Your task to perform on an android device: turn off picture-in-picture Image 0: 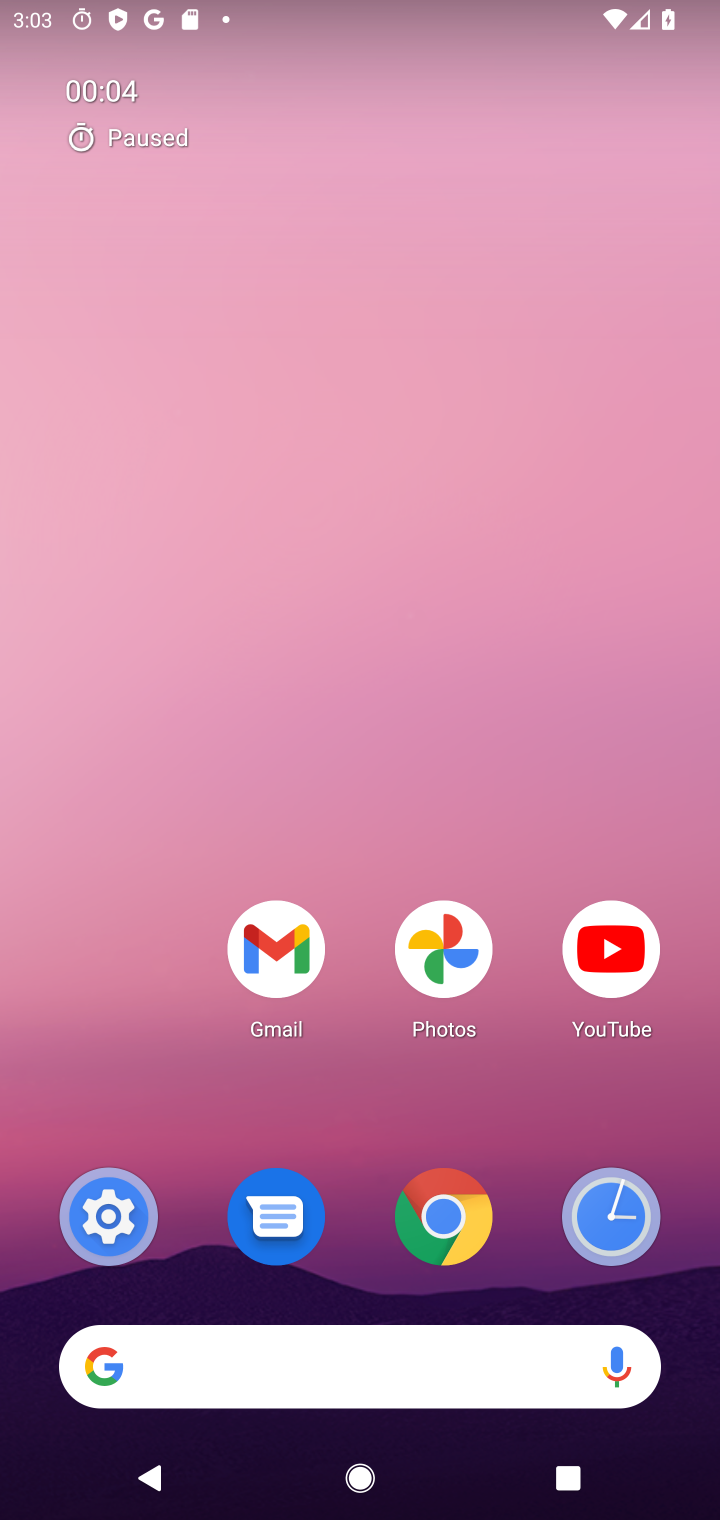
Step 0: click (88, 1190)
Your task to perform on an android device: turn off picture-in-picture Image 1: 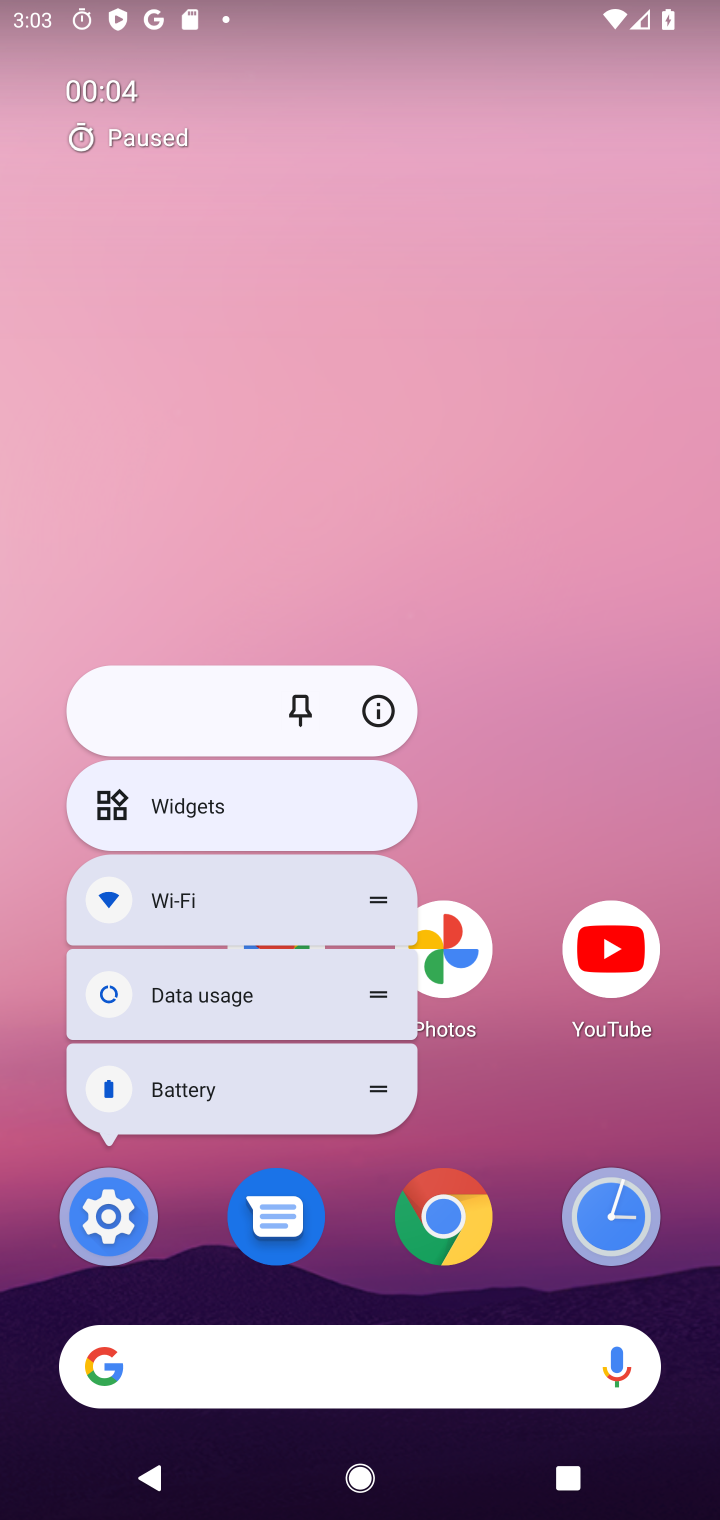
Step 1: click (123, 1178)
Your task to perform on an android device: turn off picture-in-picture Image 2: 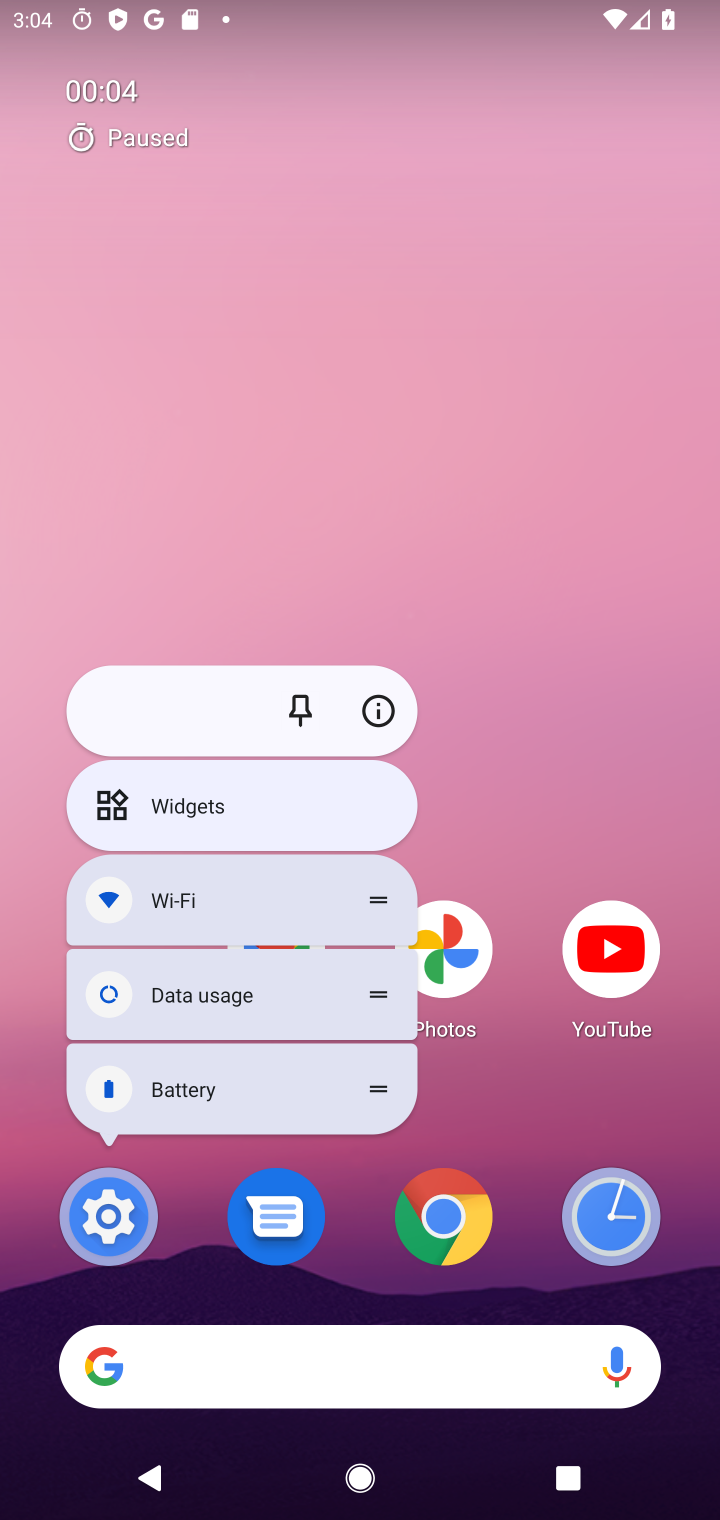
Step 2: click (122, 1222)
Your task to perform on an android device: turn off picture-in-picture Image 3: 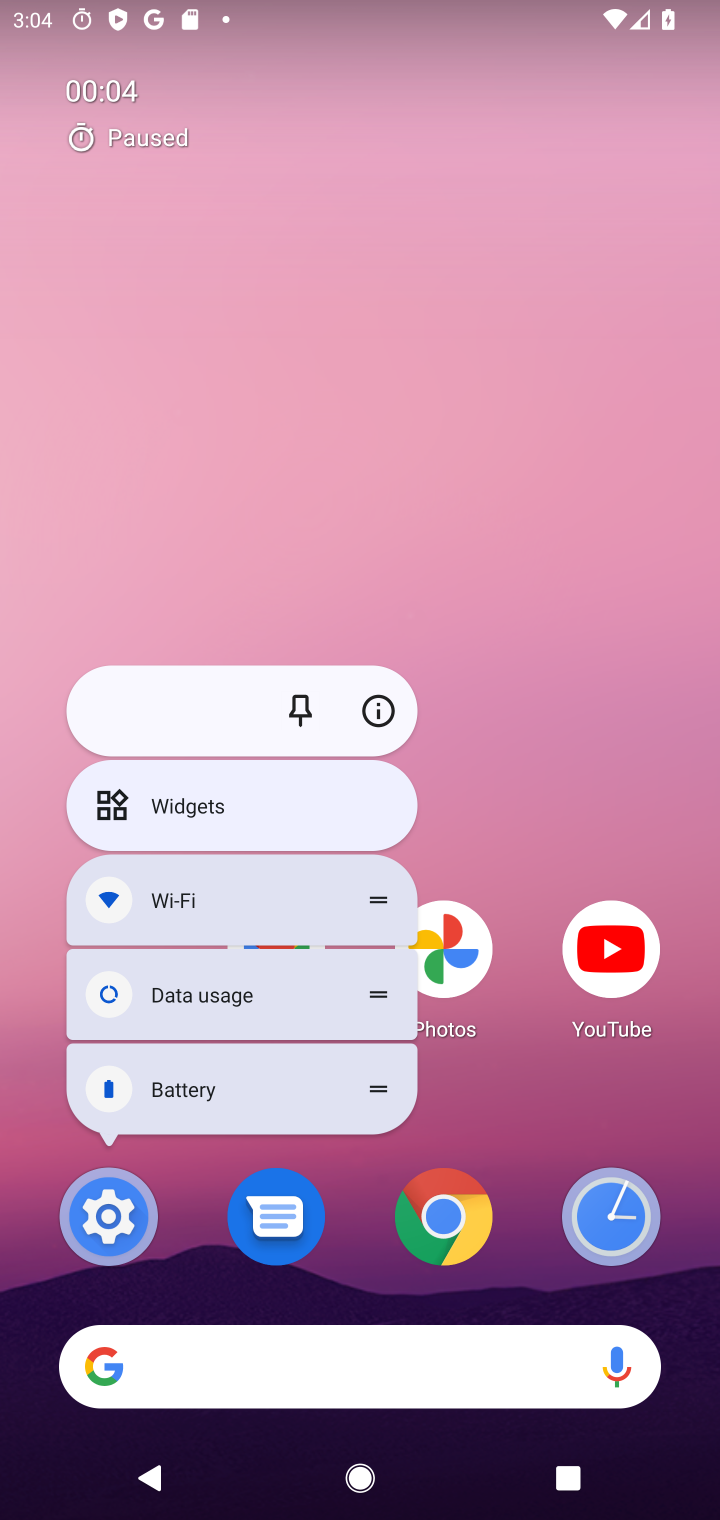
Step 3: click (89, 1198)
Your task to perform on an android device: turn off picture-in-picture Image 4: 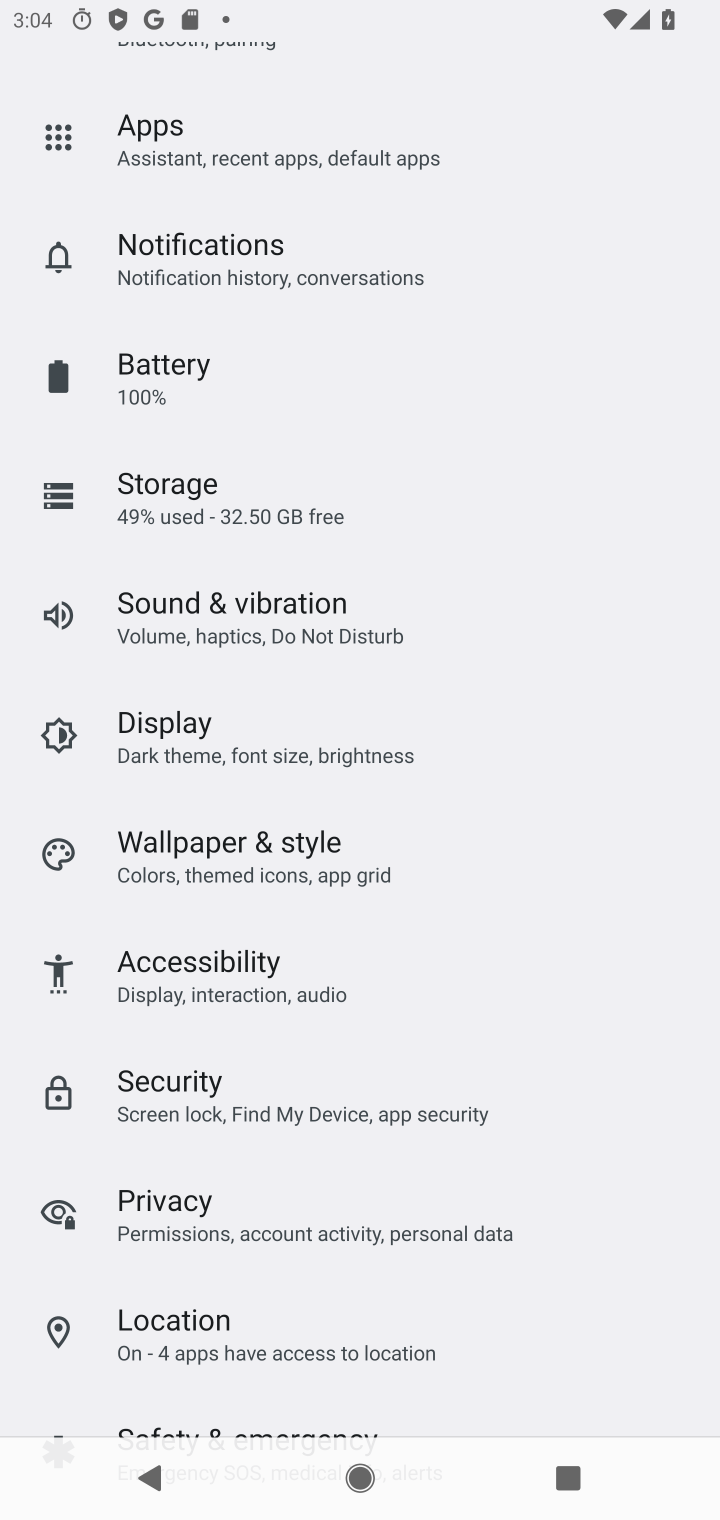
Step 4: click (307, 267)
Your task to perform on an android device: turn off picture-in-picture Image 5: 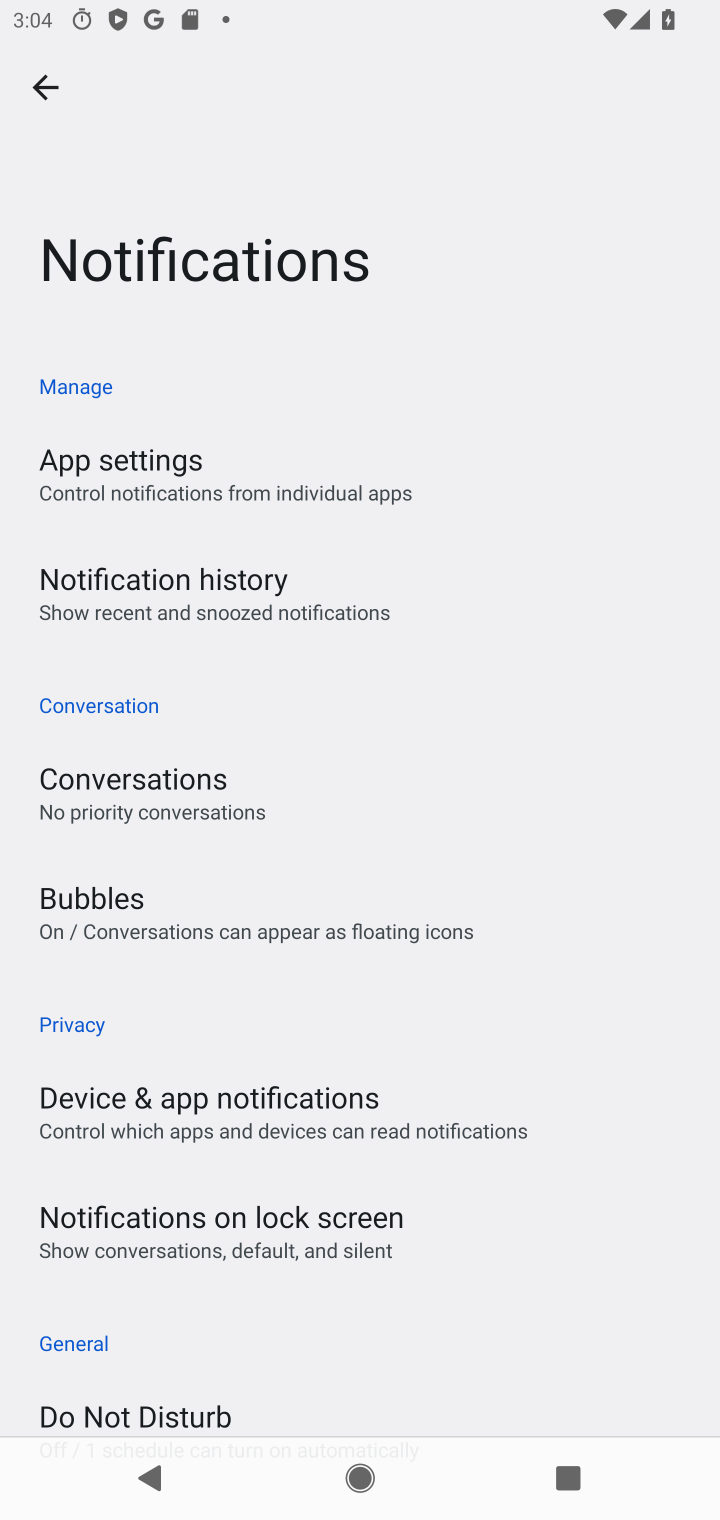
Step 5: drag from (251, 1239) to (540, 114)
Your task to perform on an android device: turn off picture-in-picture Image 6: 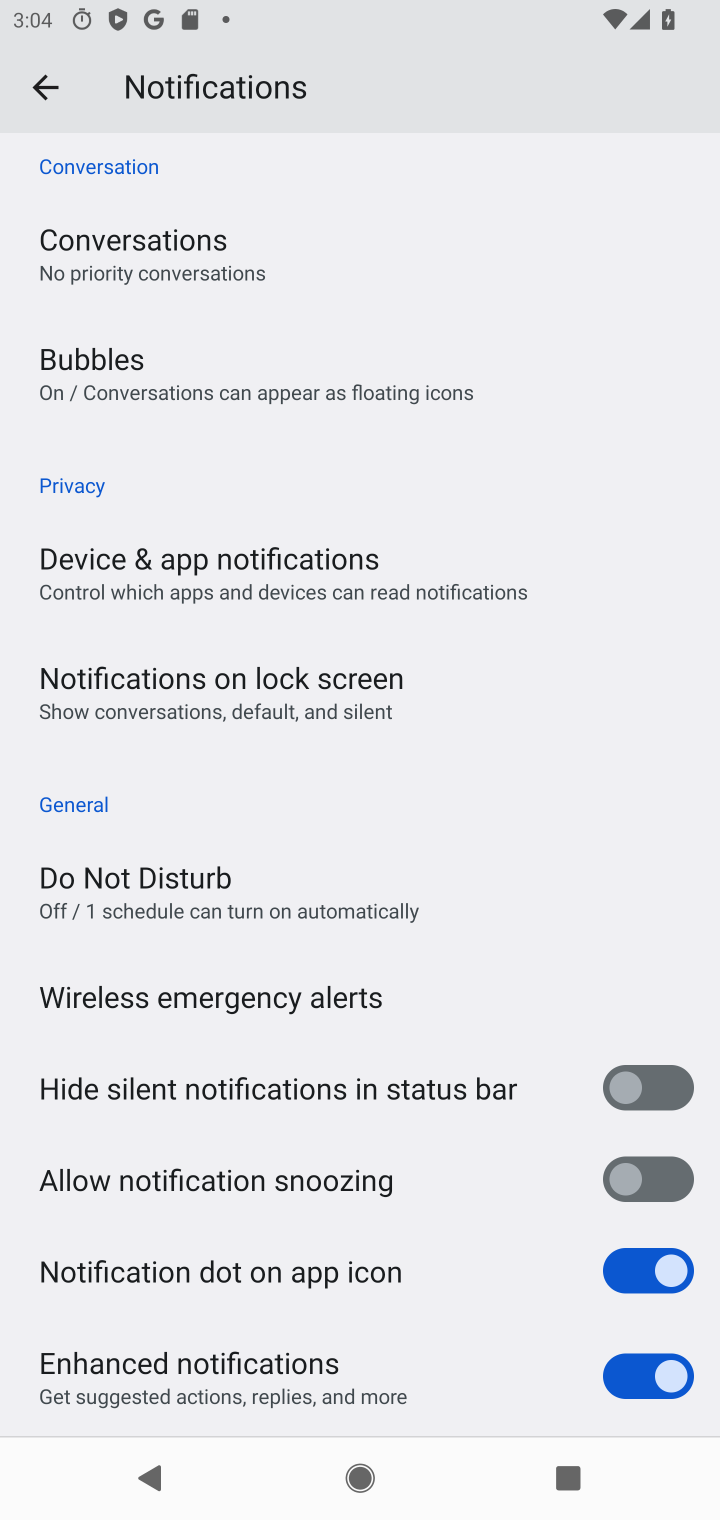
Step 6: drag from (330, 1107) to (363, 1348)
Your task to perform on an android device: turn off picture-in-picture Image 7: 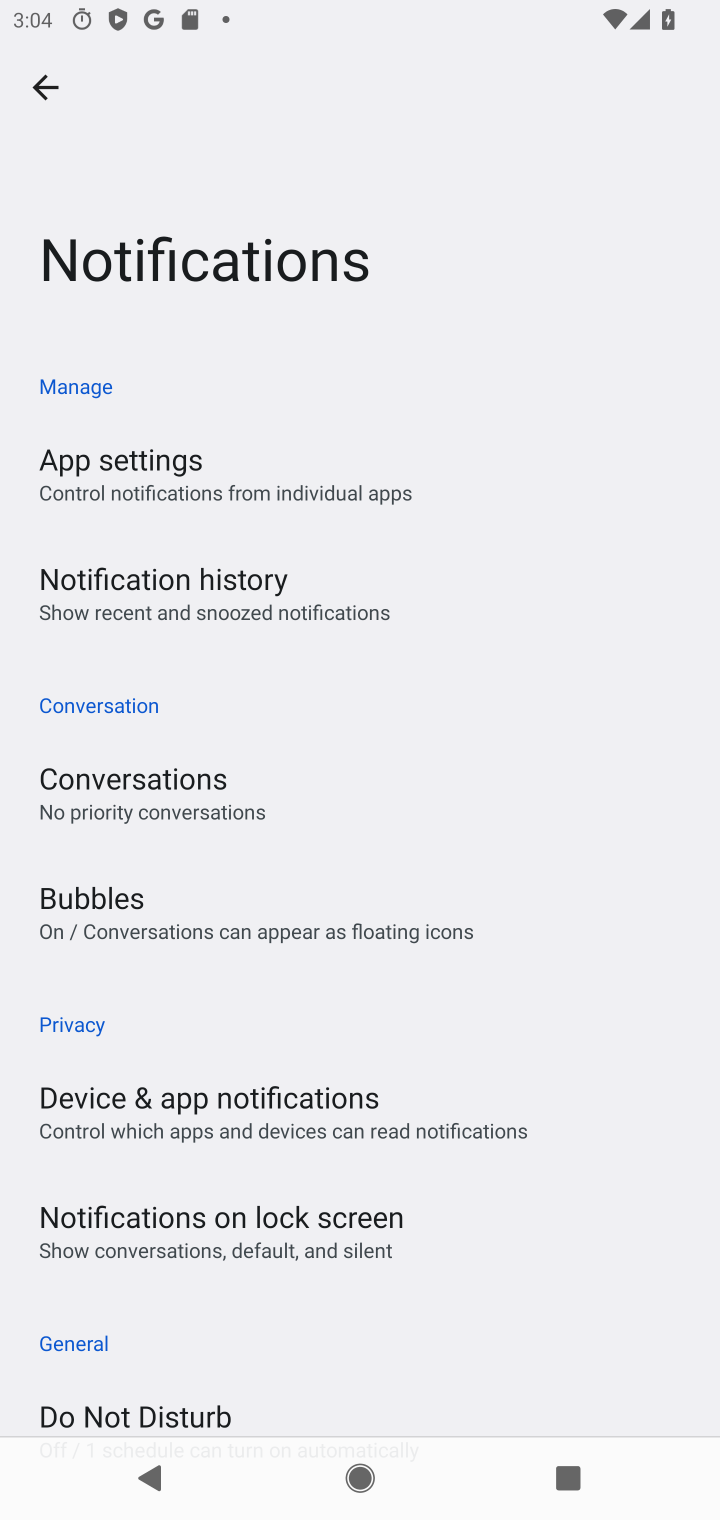
Step 7: click (222, 493)
Your task to perform on an android device: turn off picture-in-picture Image 8: 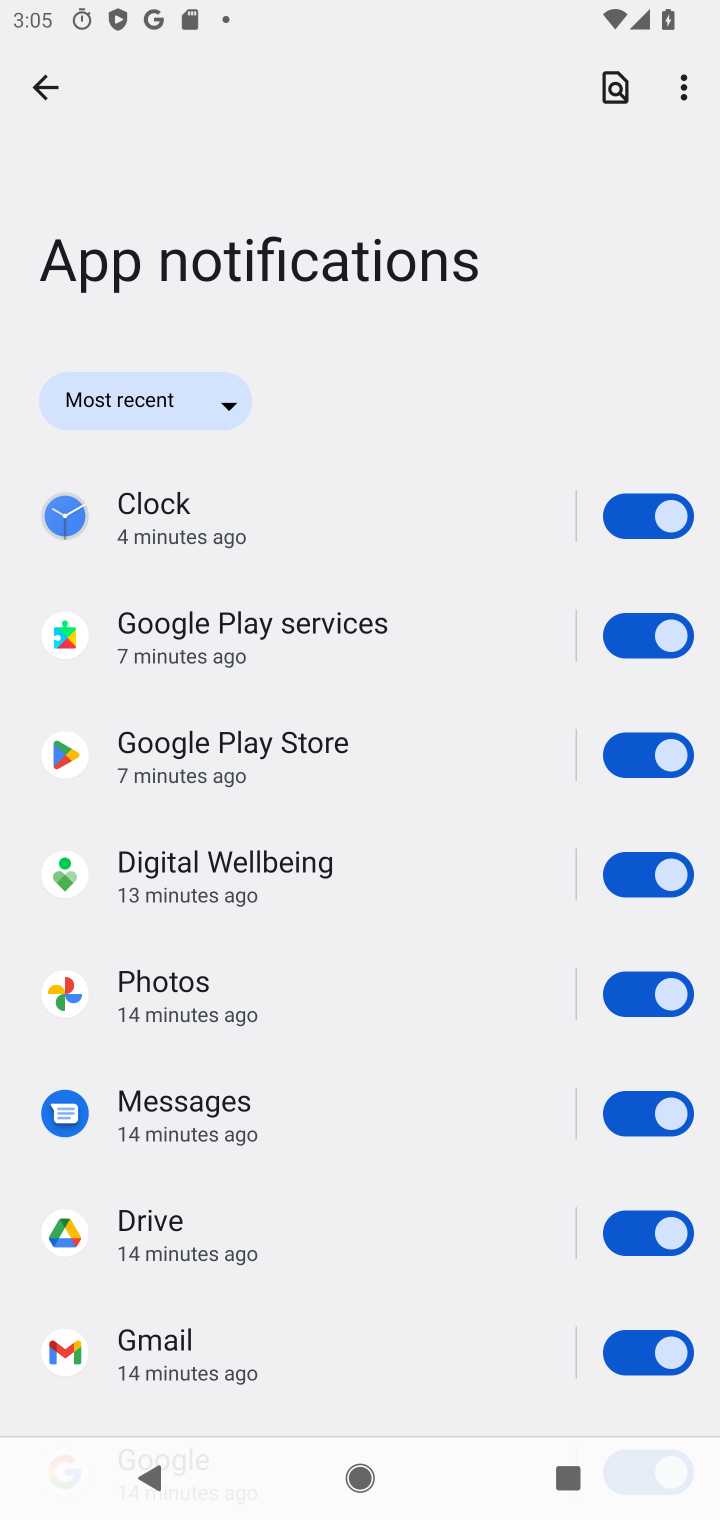
Step 8: click (54, 66)
Your task to perform on an android device: turn off picture-in-picture Image 9: 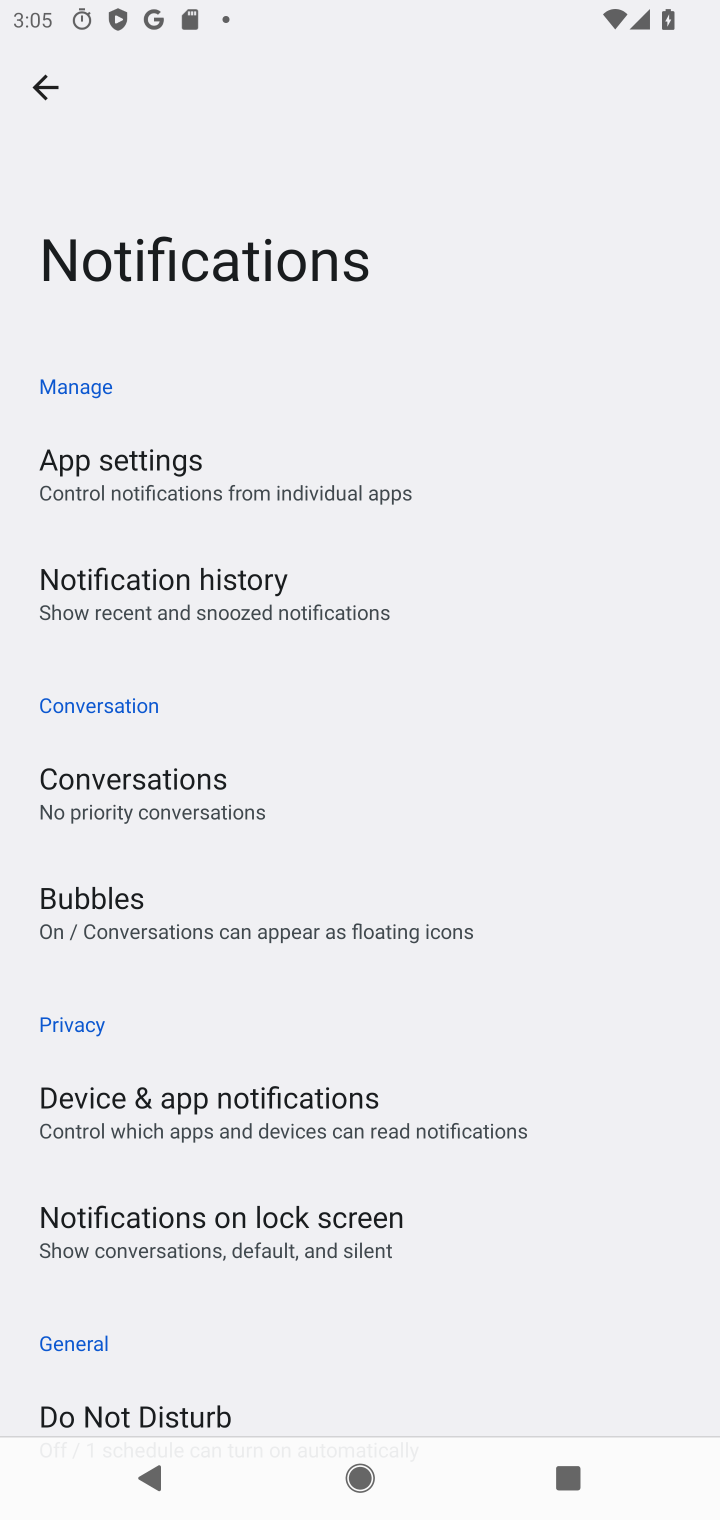
Step 9: click (148, 601)
Your task to perform on an android device: turn off picture-in-picture Image 10: 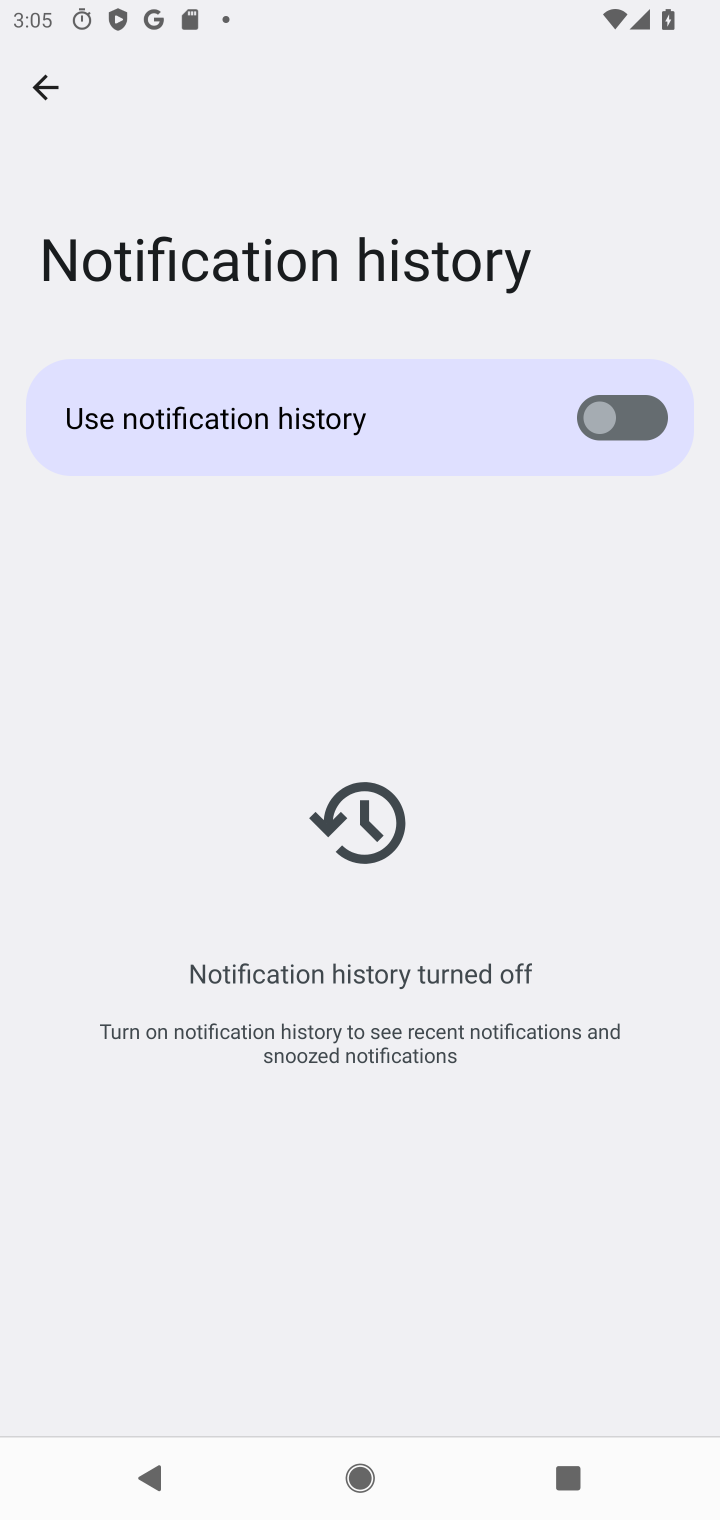
Step 10: click (45, 90)
Your task to perform on an android device: turn off picture-in-picture Image 11: 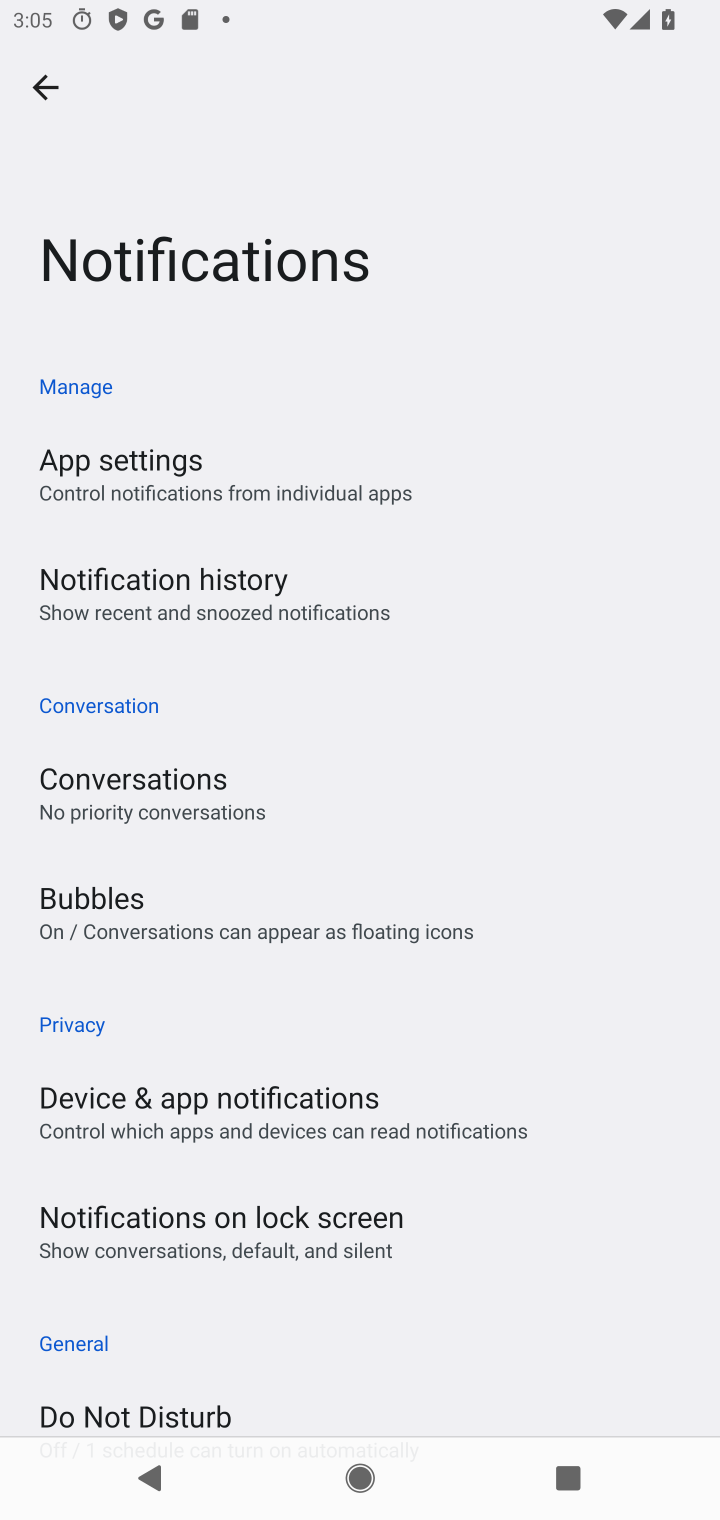
Step 11: drag from (324, 1250) to (482, 763)
Your task to perform on an android device: turn off picture-in-picture Image 12: 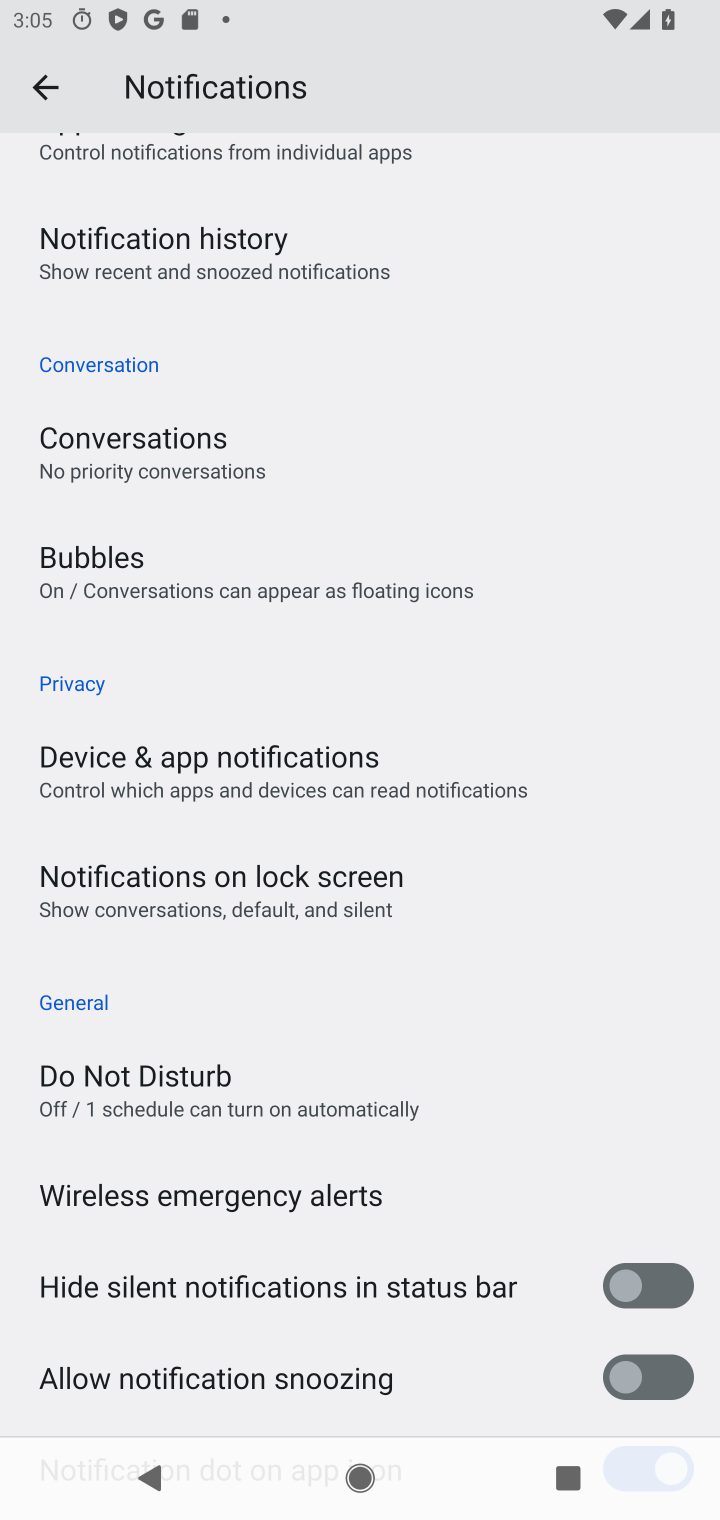
Step 12: click (377, 772)
Your task to perform on an android device: turn off picture-in-picture Image 13: 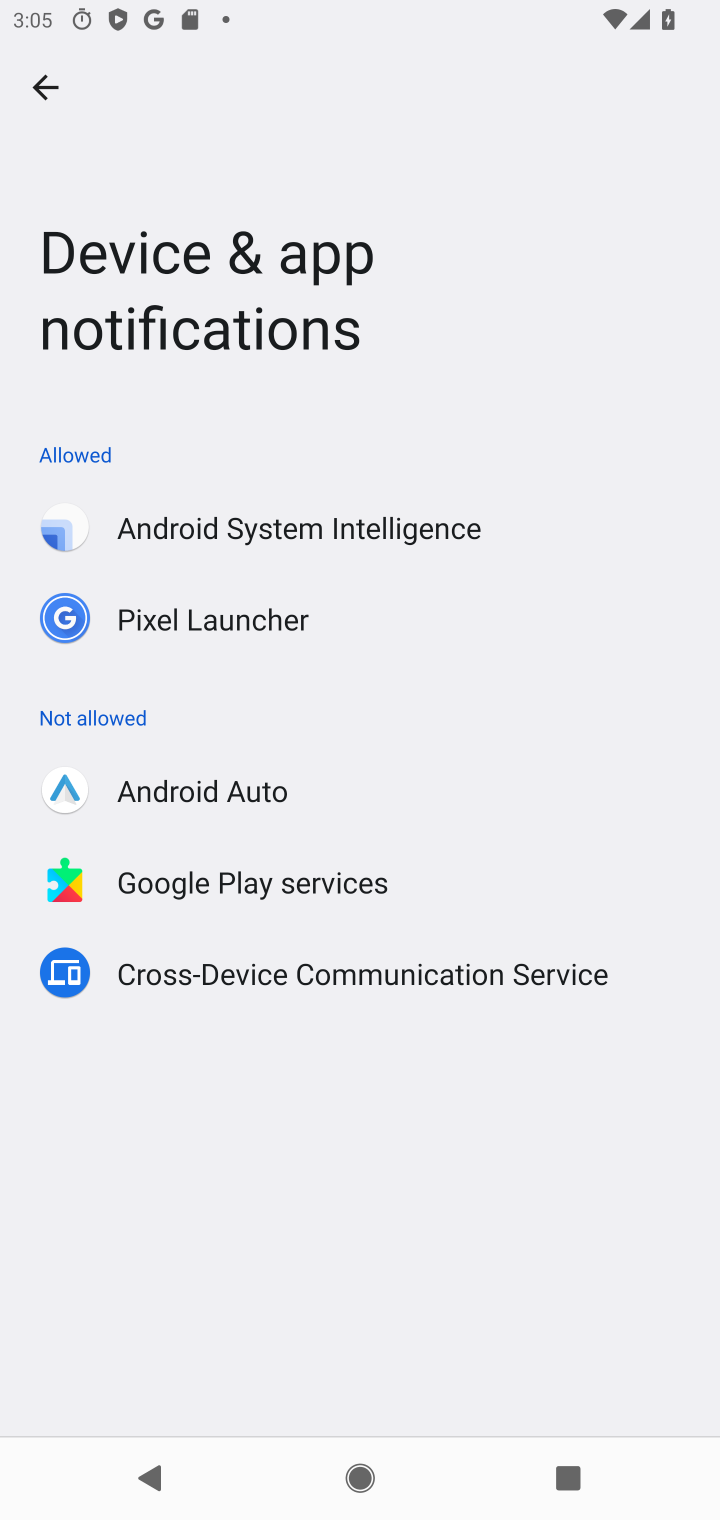
Step 13: click (57, 70)
Your task to perform on an android device: turn off picture-in-picture Image 14: 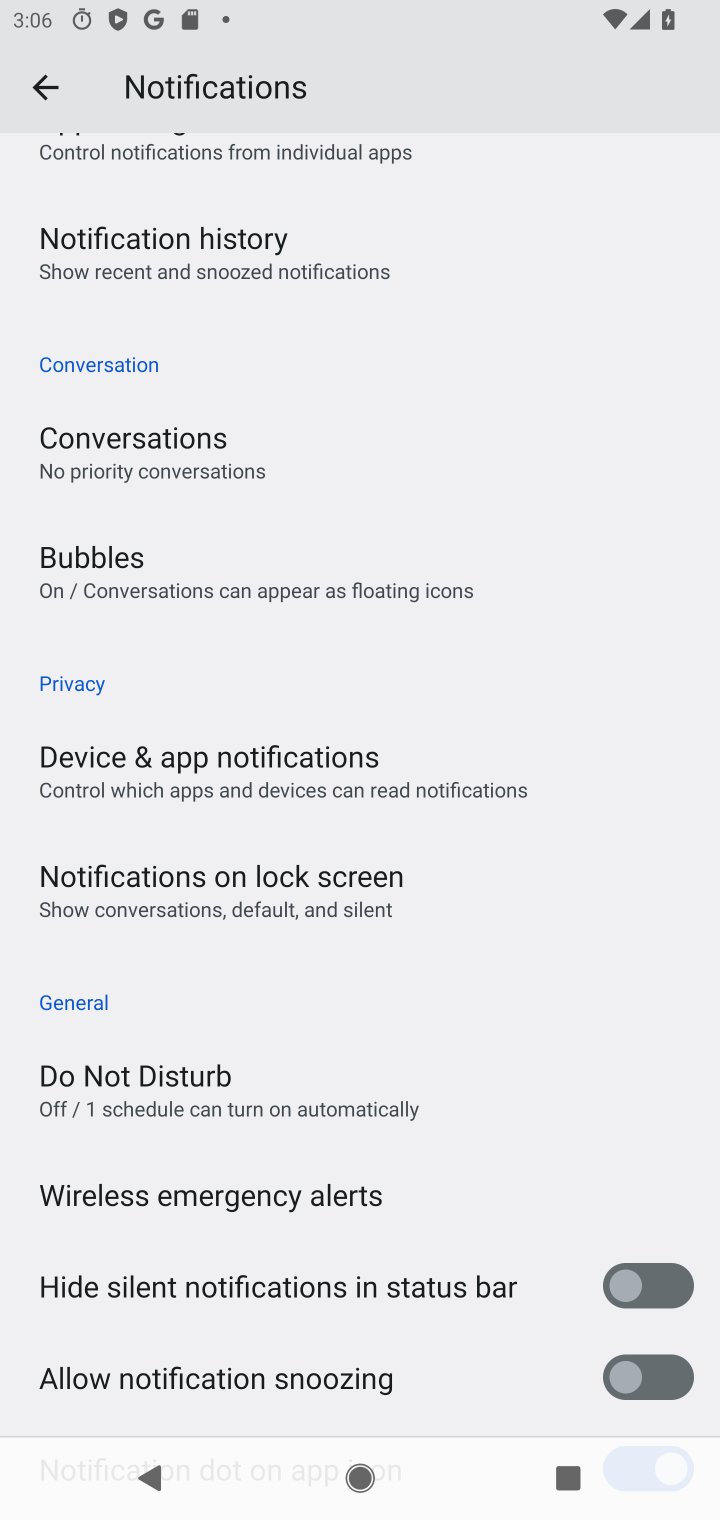
Step 14: task complete